Your task to perform on an android device: Go to ESPN.com Image 0: 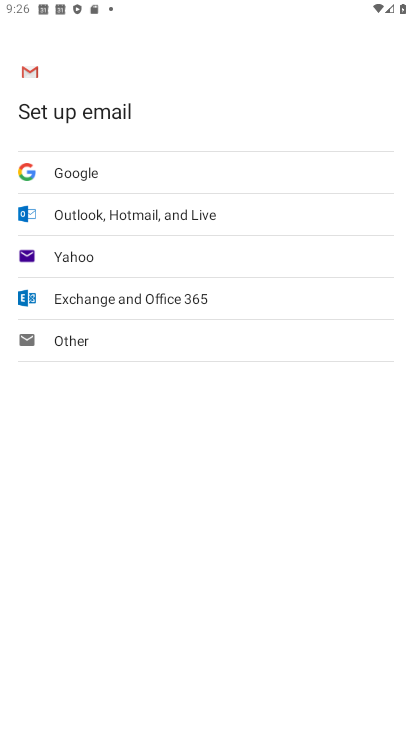
Step 0: press home button
Your task to perform on an android device: Go to ESPN.com Image 1: 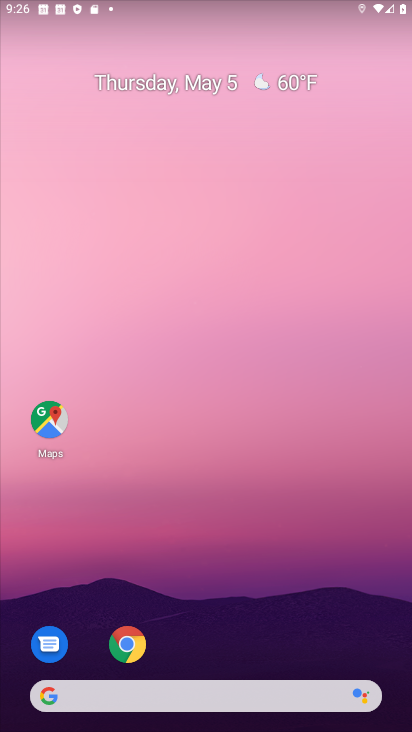
Step 1: drag from (214, 654) to (186, 196)
Your task to perform on an android device: Go to ESPN.com Image 2: 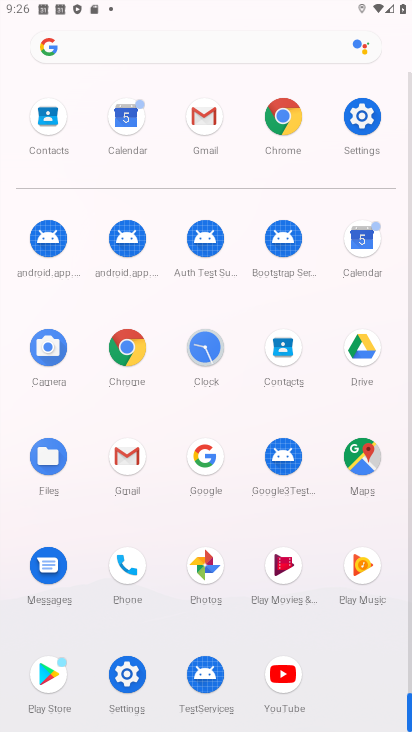
Step 2: click (225, 44)
Your task to perform on an android device: Go to ESPN.com Image 3: 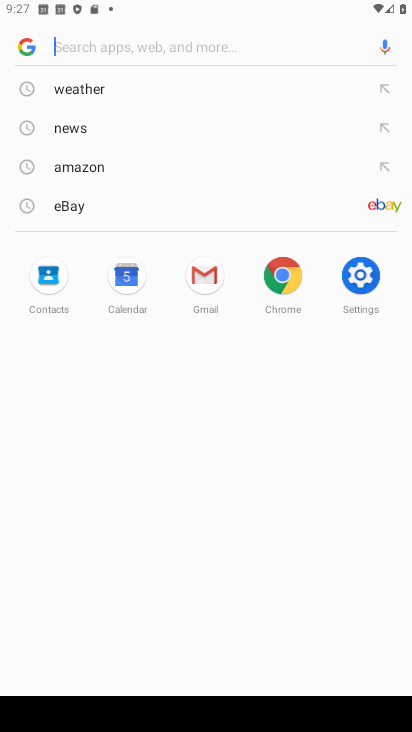
Step 3: click (166, 47)
Your task to perform on an android device: Go to ESPN.com Image 4: 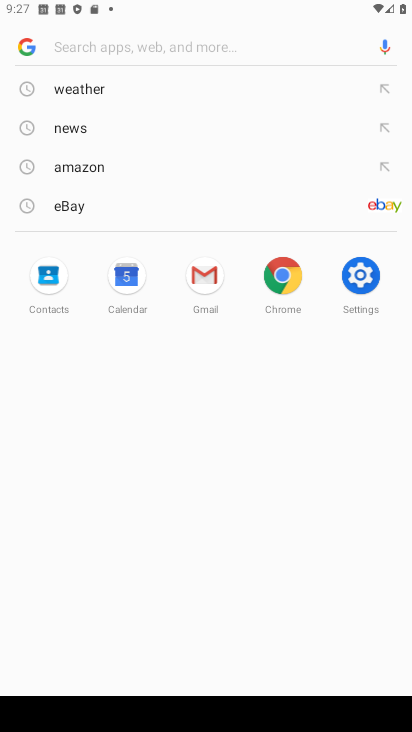
Step 4: type "espn"
Your task to perform on an android device: Go to ESPN.com Image 5: 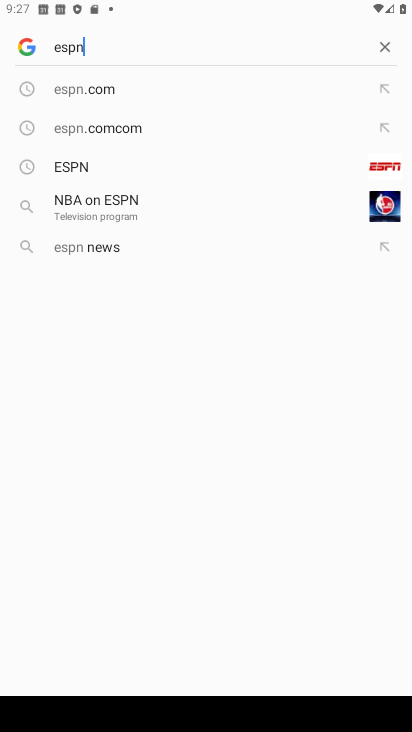
Step 5: click (126, 83)
Your task to perform on an android device: Go to ESPN.com Image 6: 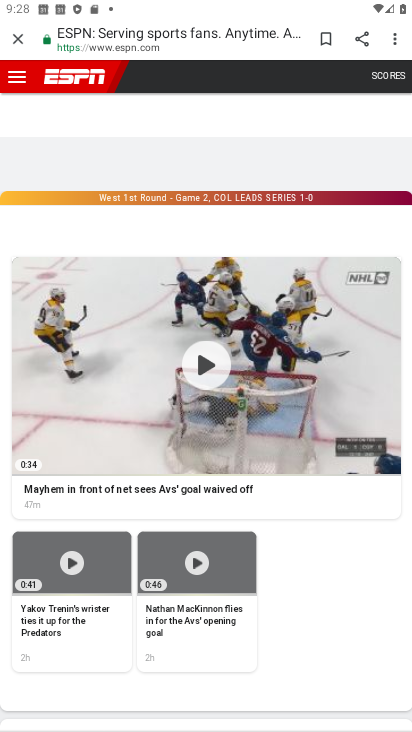
Step 6: task complete